Your task to perform on an android device: Open the calendar app, open the side menu, and click the "Day" option Image 0: 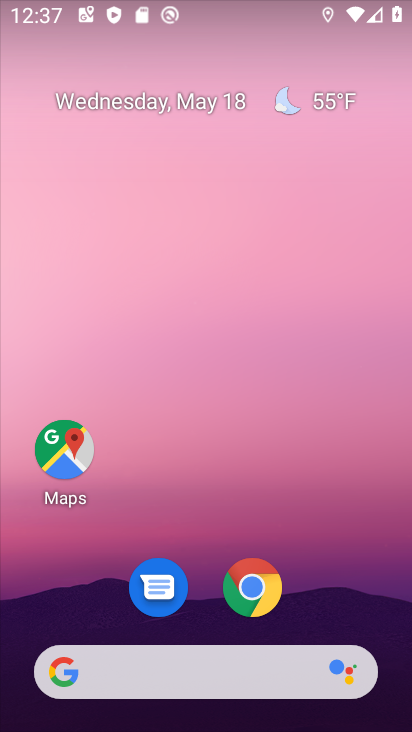
Step 0: drag from (253, 463) to (188, 131)
Your task to perform on an android device: Open the calendar app, open the side menu, and click the "Day" option Image 1: 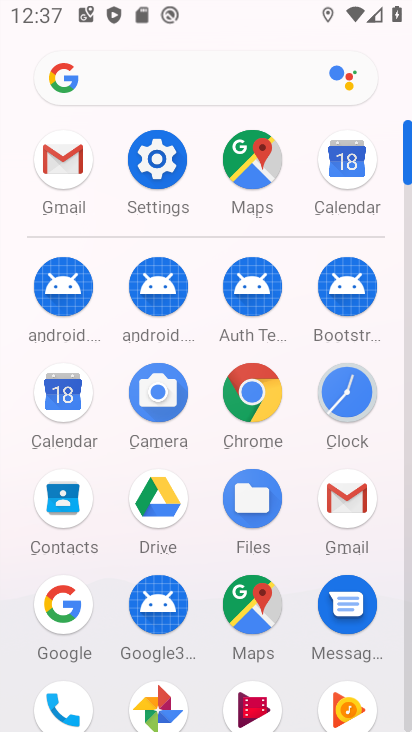
Step 1: click (344, 193)
Your task to perform on an android device: Open the calendar app, open the side menu, and click the "Day" option Image 2: 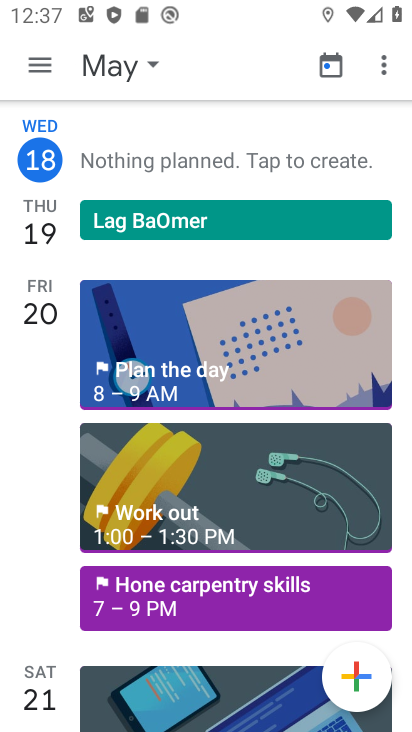
Step 2: click (41, 65)
Your task to perform on an android device: Open the calendar app, open the side menu, and click the "Day" option Image 3: 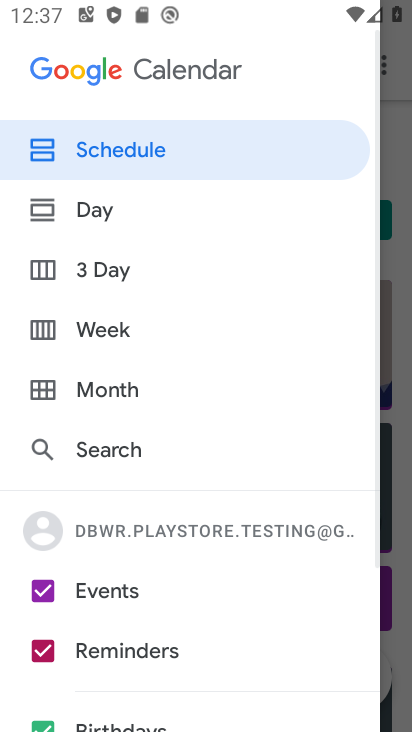
Step 3: click (112, 210)
Your task to perform on an android device: Open the calendar app, open the side menu, and click the "Day" option Image 4: 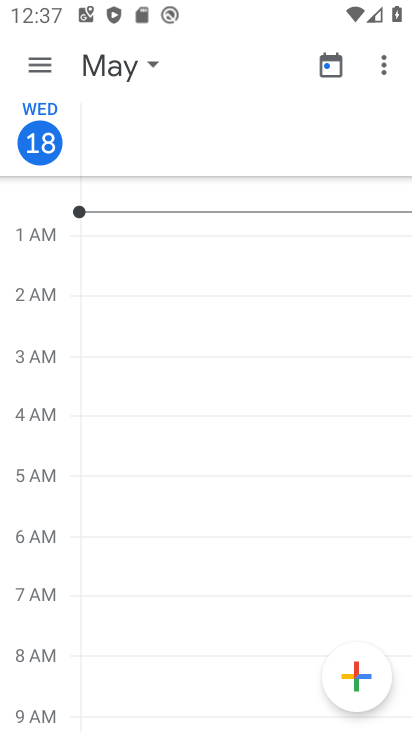
Step 4: task complete